Your task to perform on an android device: Go to display settings Image 0: 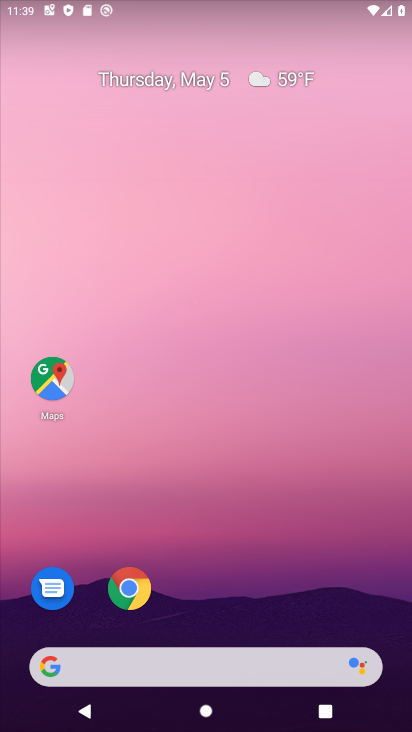
Step 0: drag from (299, 357) to (309, 84)
Your task to perform on an android device: Go to display settings Image 1: 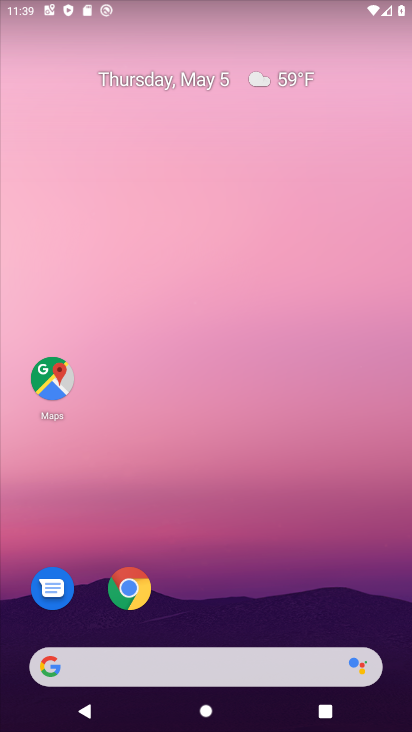
Step 1: drag from (203, 514) to (209, 30)
Your task to perform on an android device: Go to display settings Image 2: 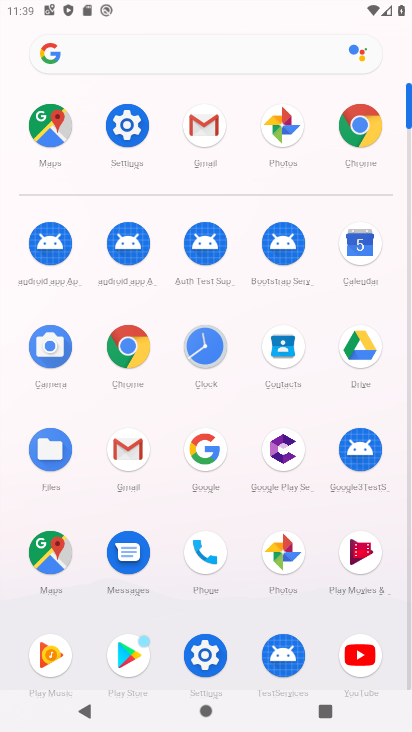
Step 2: click (124, 117)
Your task to perform on an android device: Go to display settings Image 3: 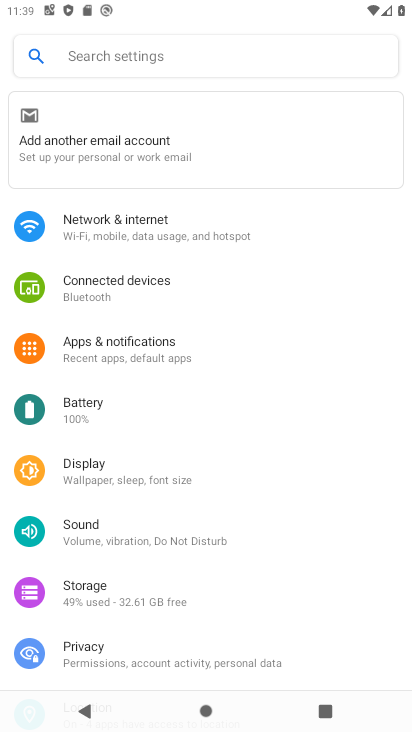
Step 3: click (147, 481)
Your task to perform on an android device: Go to display settings Image 4: 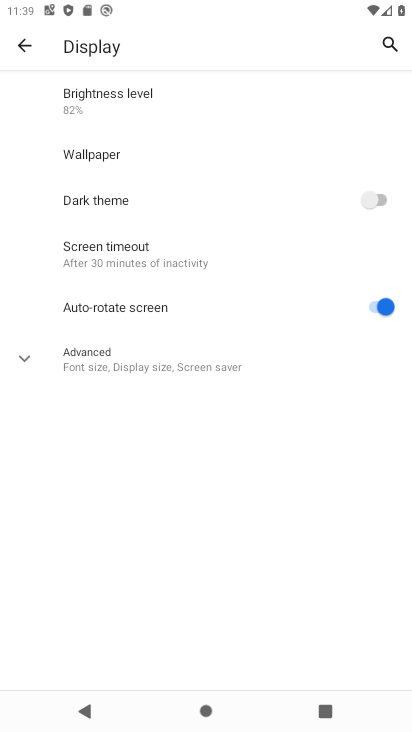
Step 4: task complete